Your task to perform on an android device: Go to Google maps Image 0: 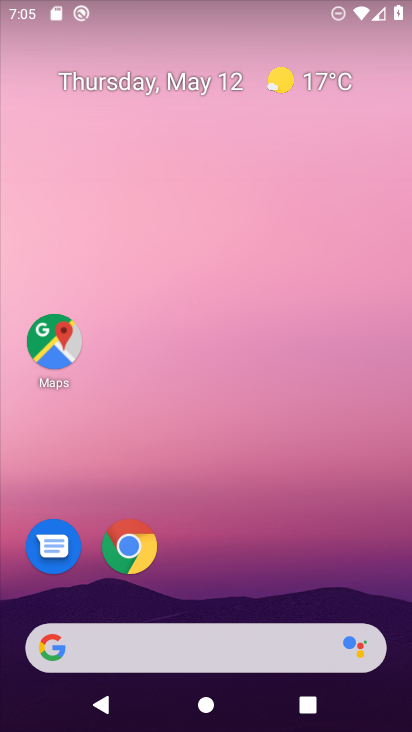
Step 0: click (52, 342)
Your task to perform on an android device: Go to Google maps Image 1: 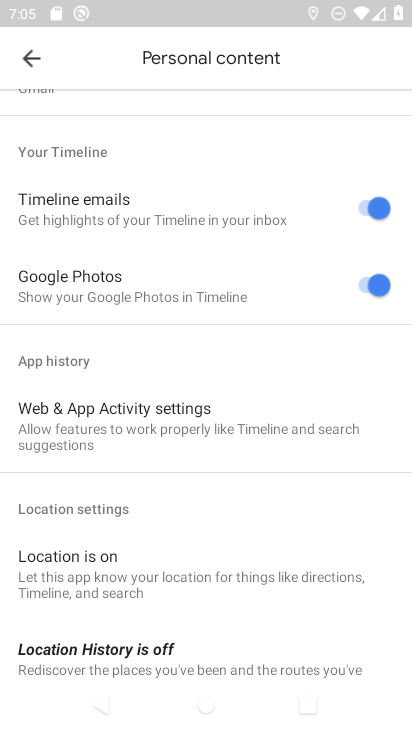
Step 1: click (23, 57)
Your task to perform on an android device: Go to Google maps Image 2: 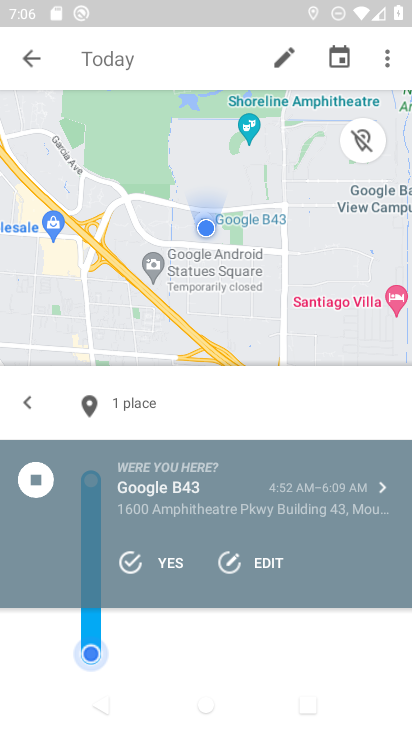
Step 2: task complete